Your task to perform on an android device: Open Chrome and go to settings Image 0: 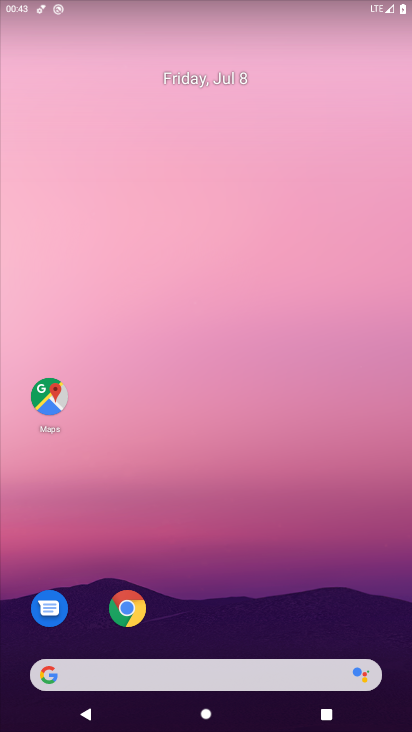
Step 0: click (228, 365)
Your task to perform on an android device: Open Chrome and go to settings Image 1: 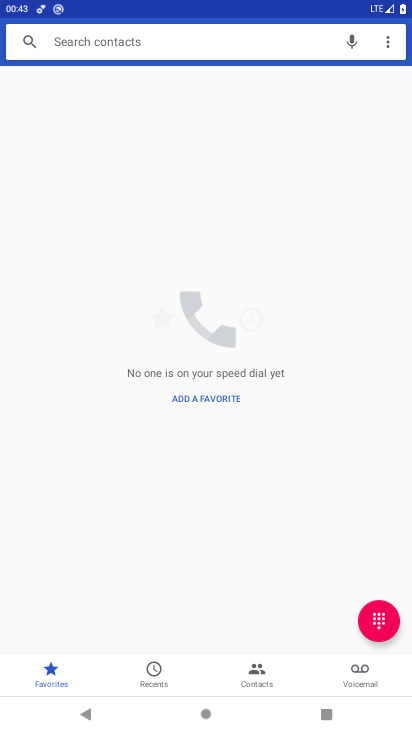
Step 1: press home button
Your task to perform on an android device: Open Chrome and go to settings Image 2: 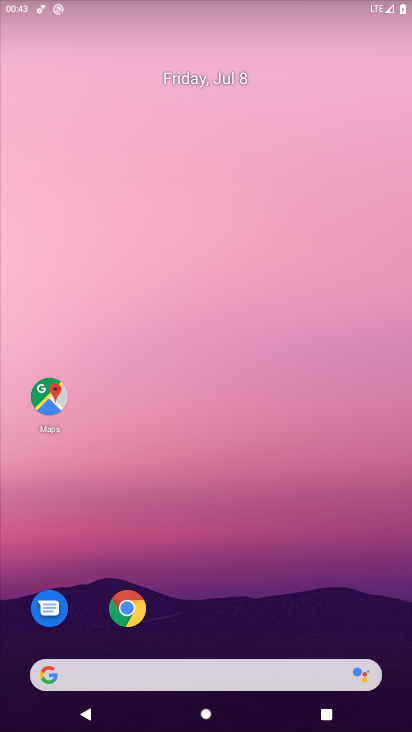
Step 2: click (129, 616)
Your task to perform on an android device: Open Chrome and go to settings Image 3: 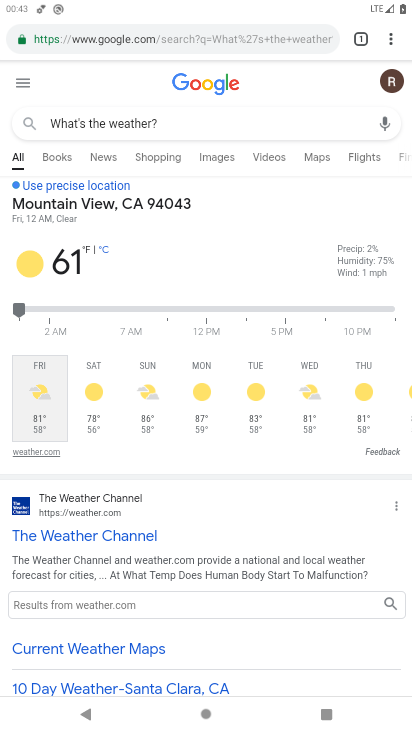
Step 3: task complete